Your task to perform on an android device: open wifi settings Image 0: 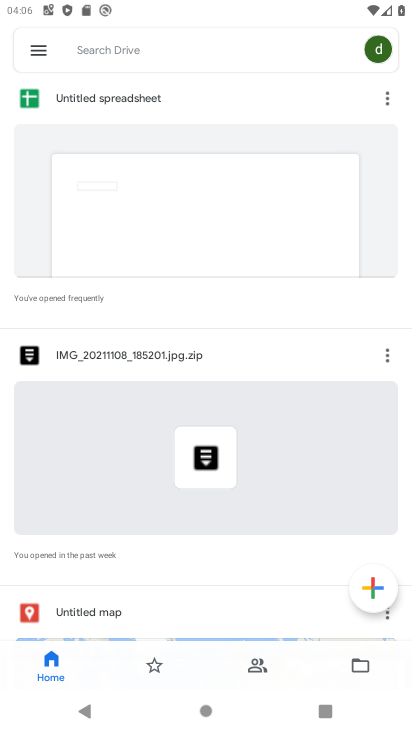
Step 0: press home button
Your task to perform on an android device: open wifi settings Image 1: 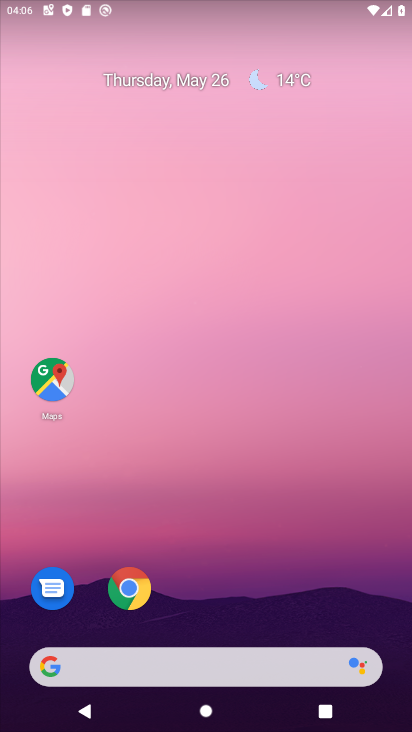
Step 1: drag from (254, 584) to (283, 105)
Your task to perform on an android device: open wifi settings Image 2: 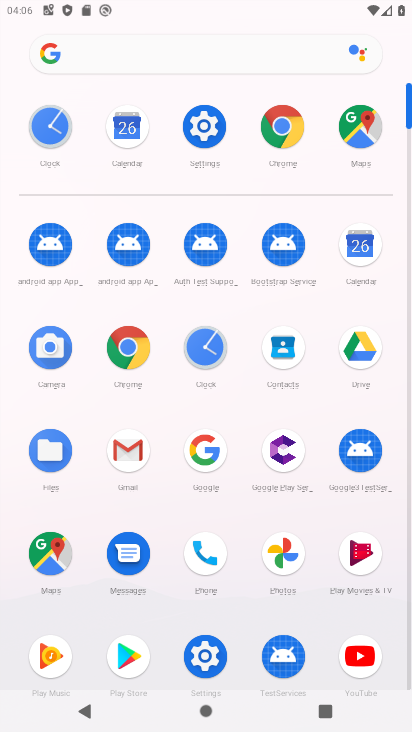
Step 2: click (199, 150)
Your task to perform on an android device: open wifi settings Image 3: 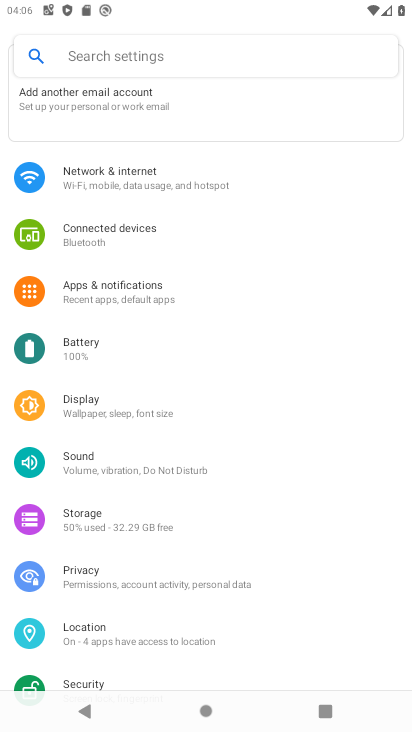
Step 3: drag from (213, 92) to (219, 193)
Your task to perform on an android device: open wifi settings Image 4: 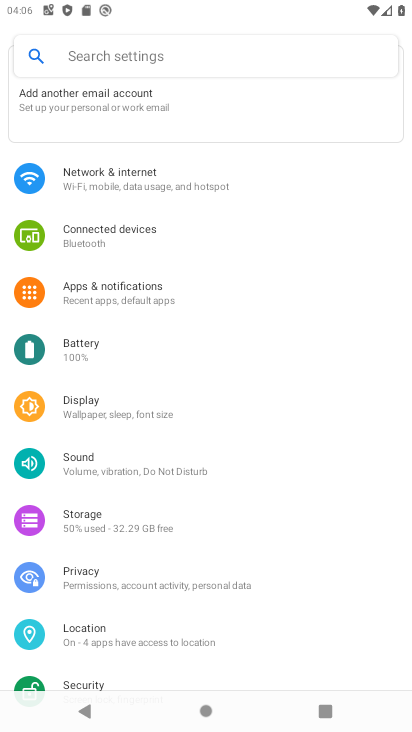
Step 4: click (219, 193)
Your task to perform on an android device: open wifi settings Image 5: 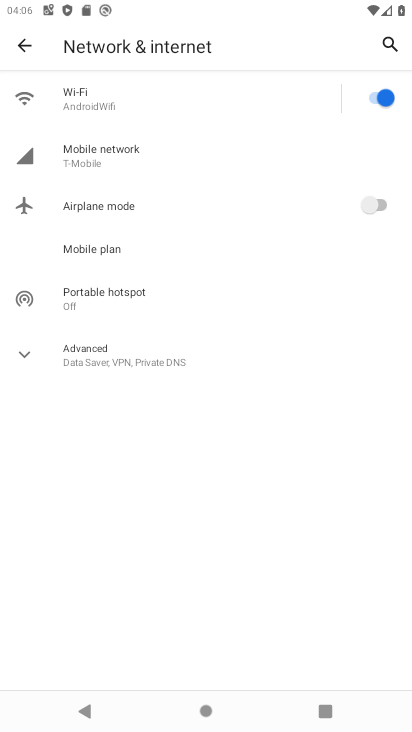
Step 5: task complete